Your task to perform on an android device: Show me the alarms in the clock app Image 0: 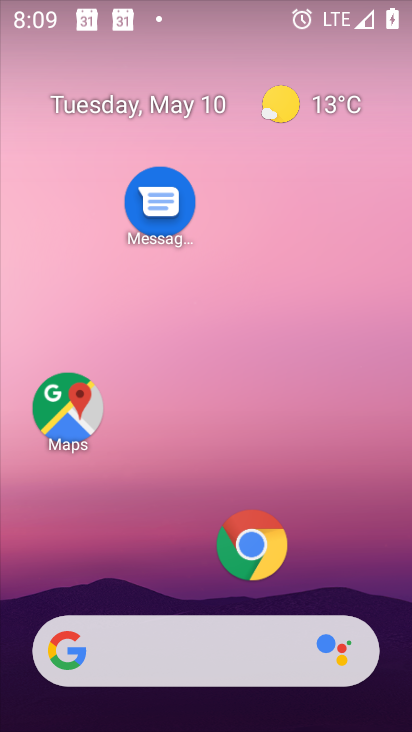
Step 0: drag from (197, 578) to (227, 104)
Your task to perform on an android device: Show me the alarms in the clock app Image 1: 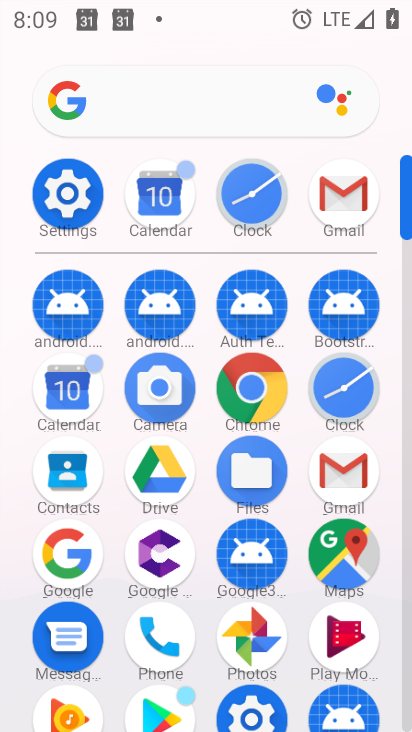
Step 1: click (340, 374)
Your task to perform on an android device: Show me the alarms in the clock app Image 2: 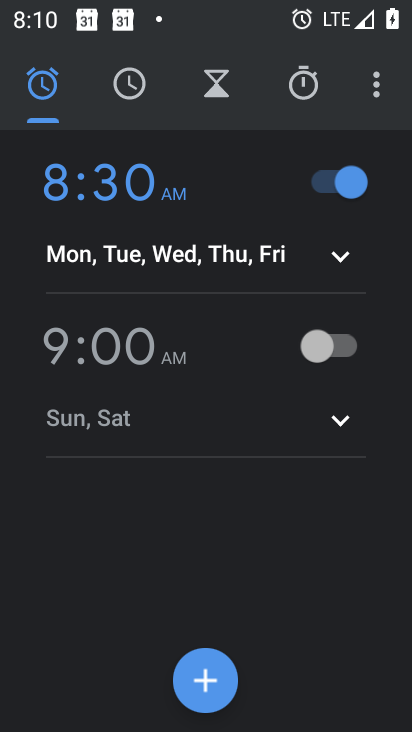
Step 2: task complete